Your task to perform on an android device: Search for Mexican restaurants on Maps Image 0: 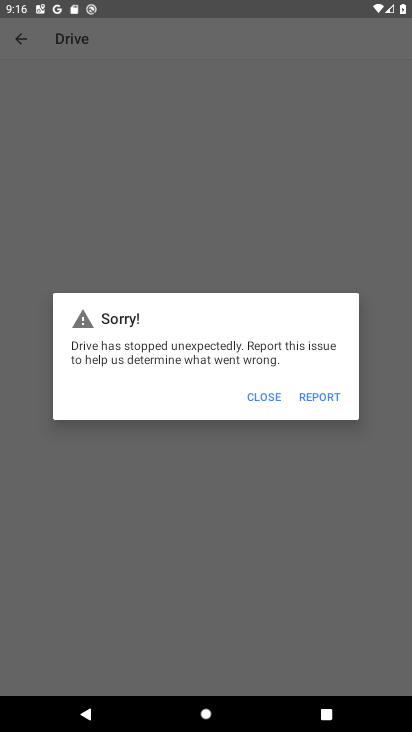
Step 0: press home button
Your task to perform on an android device: Search for Mexican restaurants on Maps Image 1: 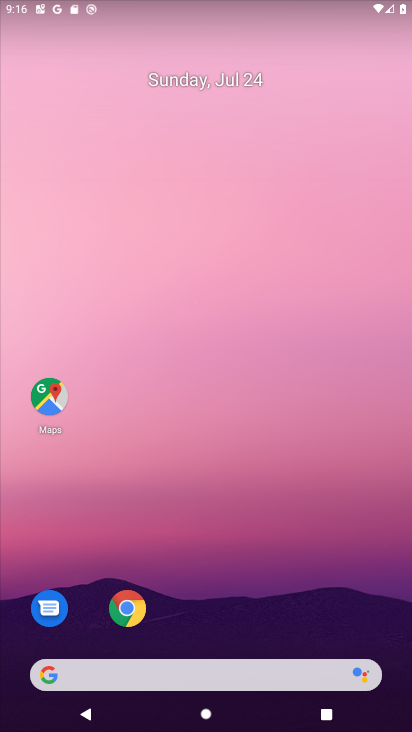
Step 1: click (57, 413)
Your task to perform on an android device: Search for Mexican restaurants on Maps Image 2: 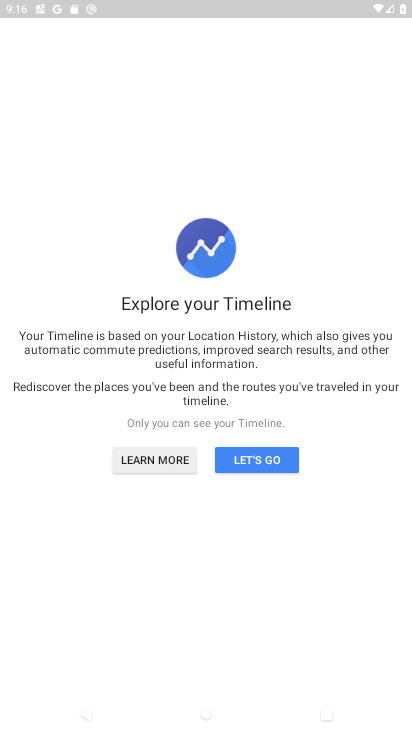
Step 2: click (235, 471)
Your task to perform on an android device: Search for Mexican restaurants on Maps Image 3: 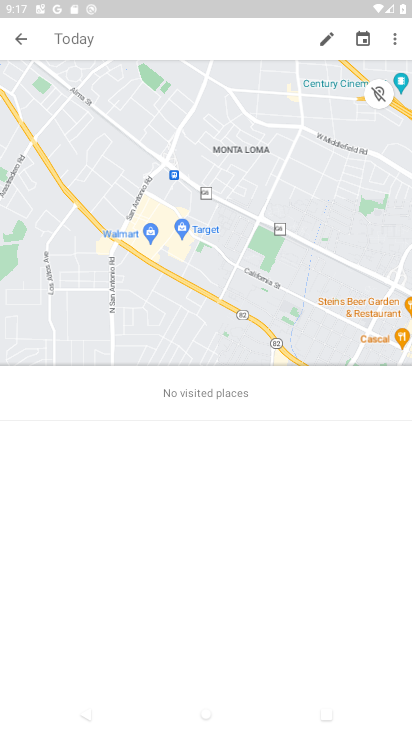
Step 3: click (18, 46)
Your task to perform on an android device: Search for Mexican restaurants on Maps Image 4: 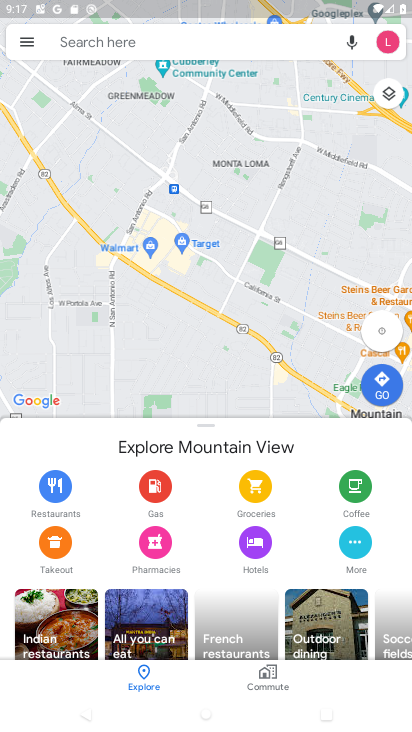
Step 4: click (141, 42)
Your task to perform on an android device: Search for Mexican restaurants on Maps Image 5: 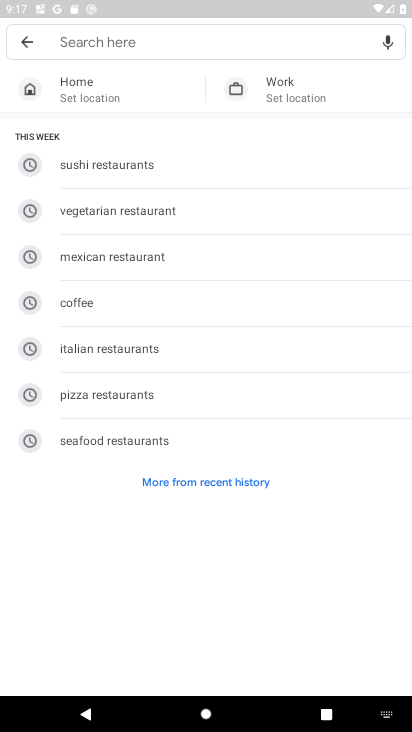
Step 5: click (144, 248)
Your task to perform on an android device: Search for Mexican restaurants on Maps Image 6: 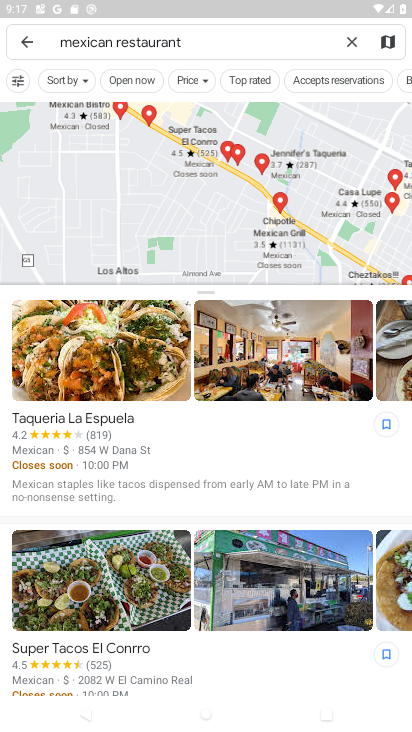
Step 6: task complete